Your task to perform on an android device: uninstall "DoorDash - Dasher" Image 0: 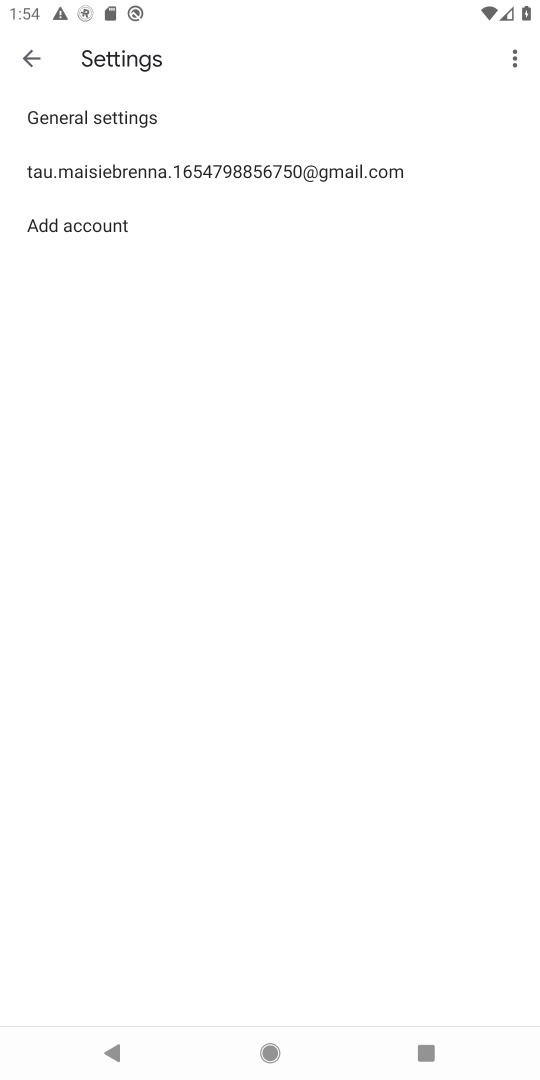
Step 0: press home button
Your task to perform on an android device: uninstall "DoorDash - Dasher" Image 1: 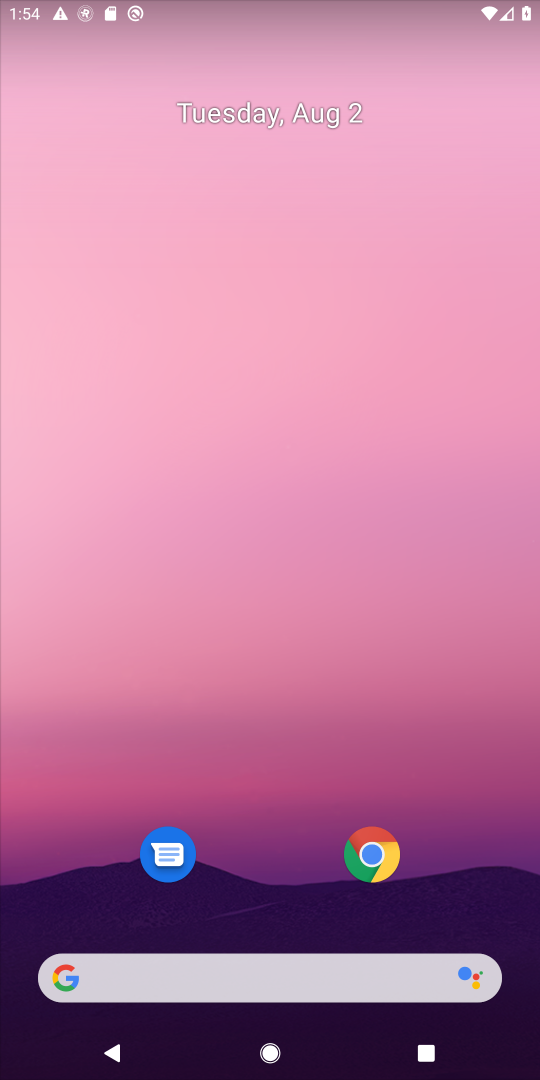
Step 1: drag from (326, 331) to (326, 88)
Your task to perform on an android device: uninstall "DoorDash - Dasher" Image 2: 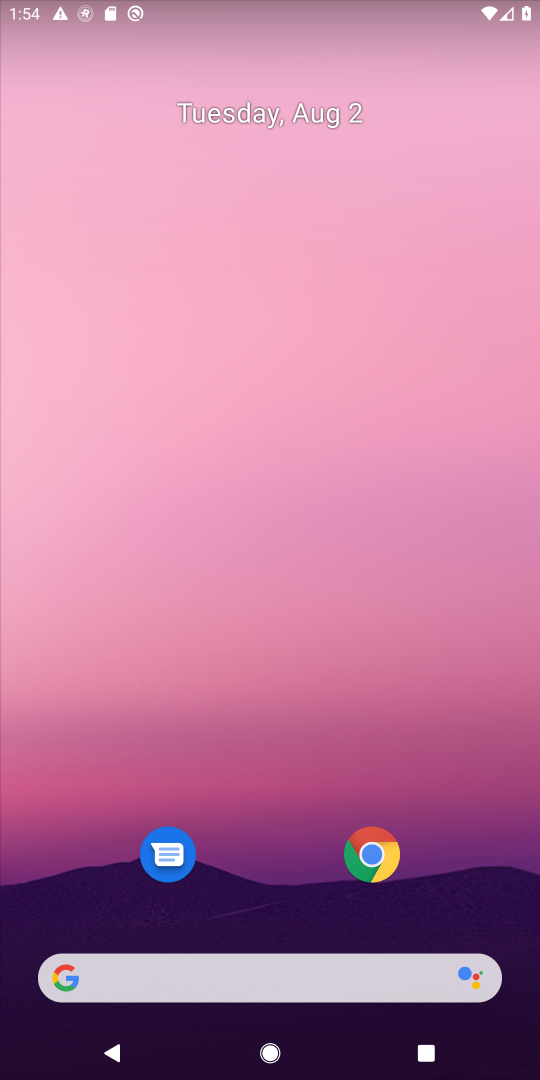
Step 2: drag from (317, 1056) to (314, 38)
Your task to perform on an android device: uninstall "DoorDash - Dasher" Image 3: 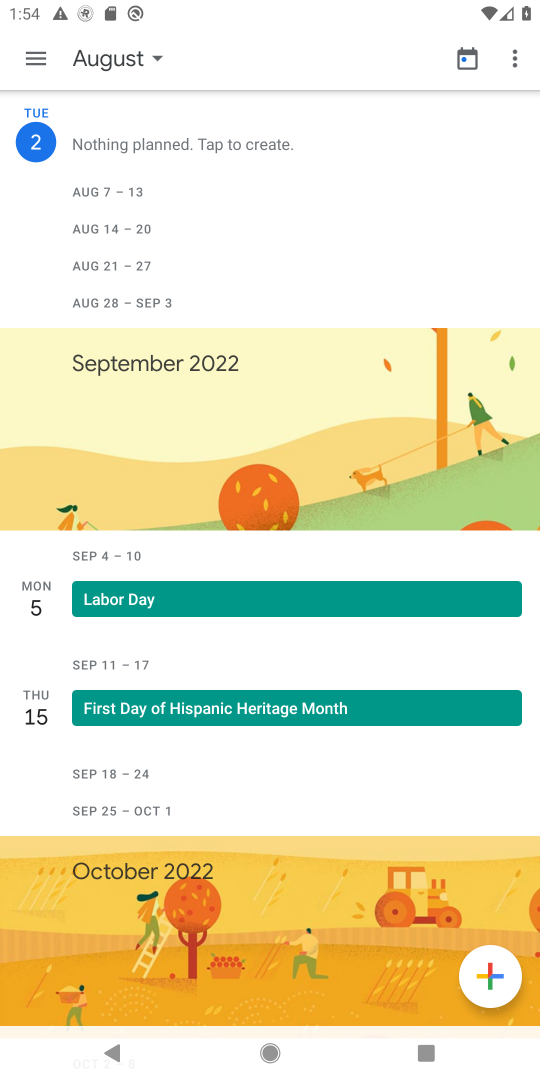
Step 3: press home button
Your task to perform on an android device: uninstall "DoorDash - Dasher" Image 4: 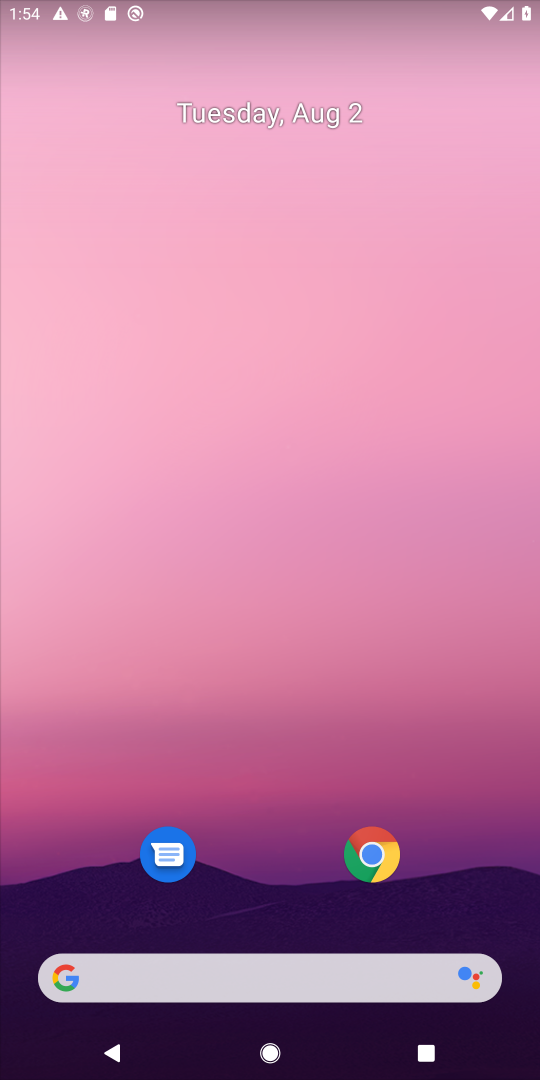
Step 4: drag from (310, 828) to (297, 136)
Your task to perform on an android device: uninstall "DoorDash - Dasher" Image 5: 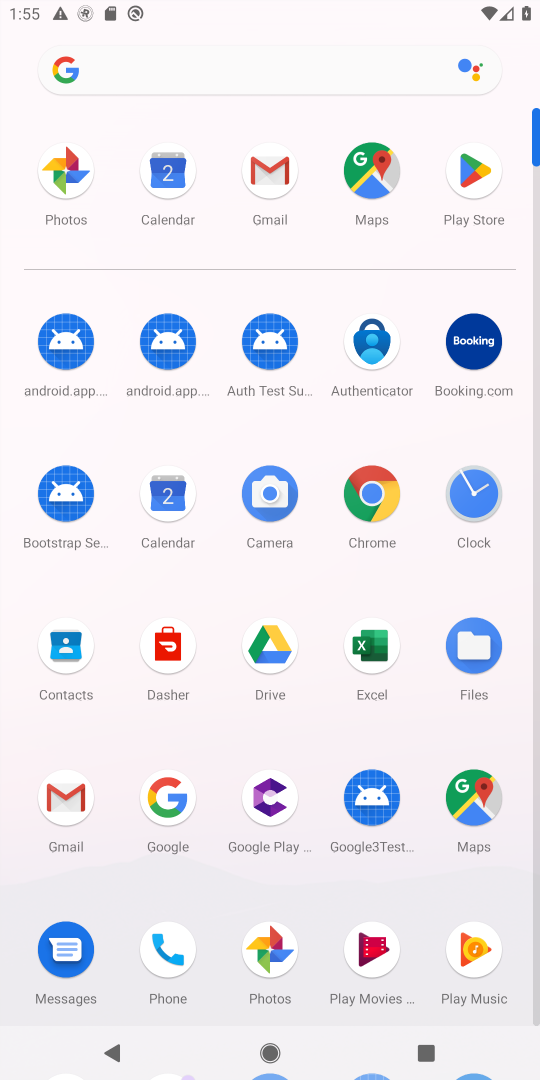
Step 5: click (471, 176)
Your task to perform on an android device: uninstall "DoorDash - Dasher" Image 6: 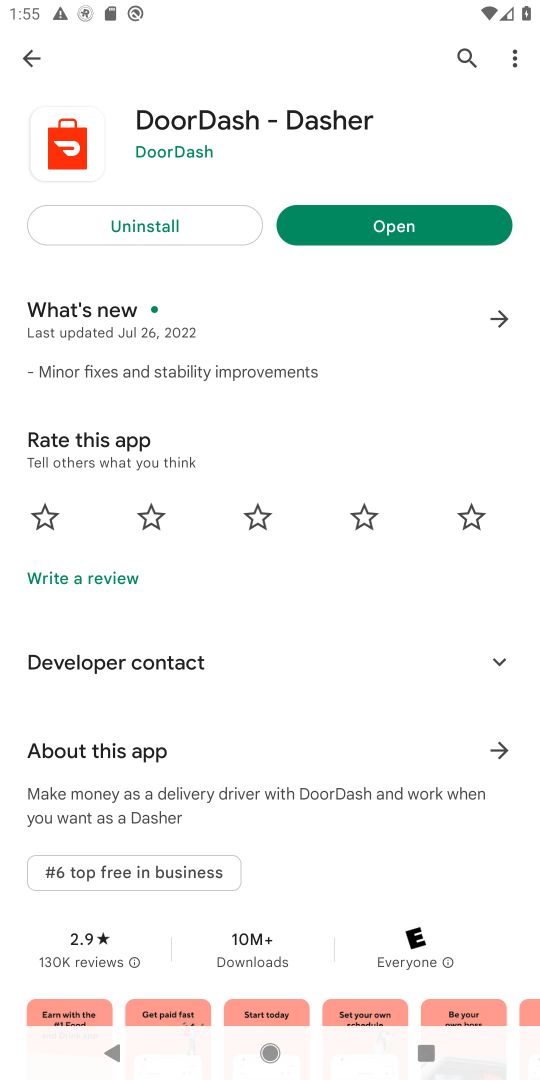
Step 6: click (462, 51)
Your task to perform on an android device: uninstall "DoorDash - Dasher" Image 7: 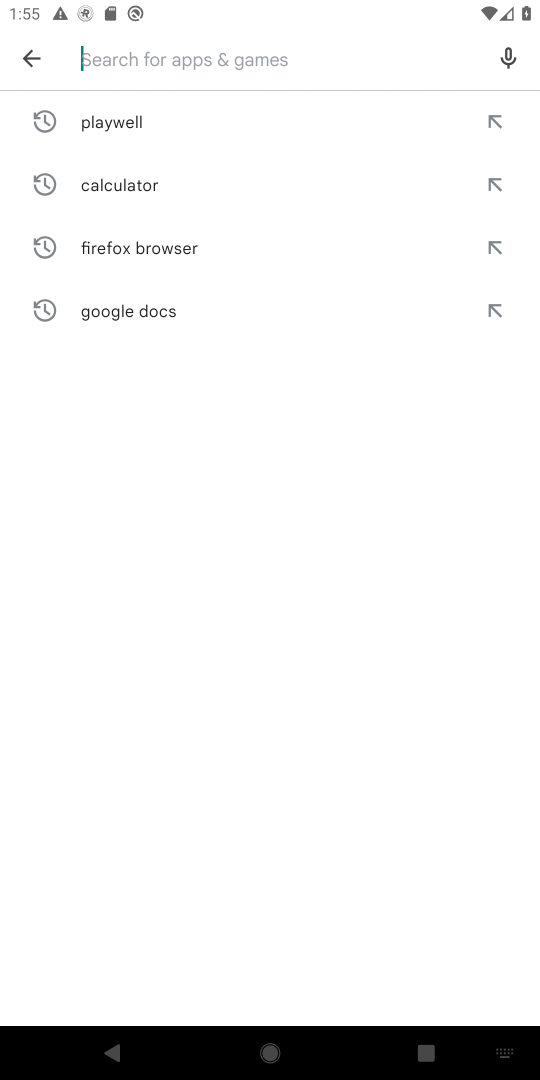
Step 7: type "DoorDash - Dashe"
Your task to perform on an android device: uninstall "DoorDash - Dasher" Image 8: 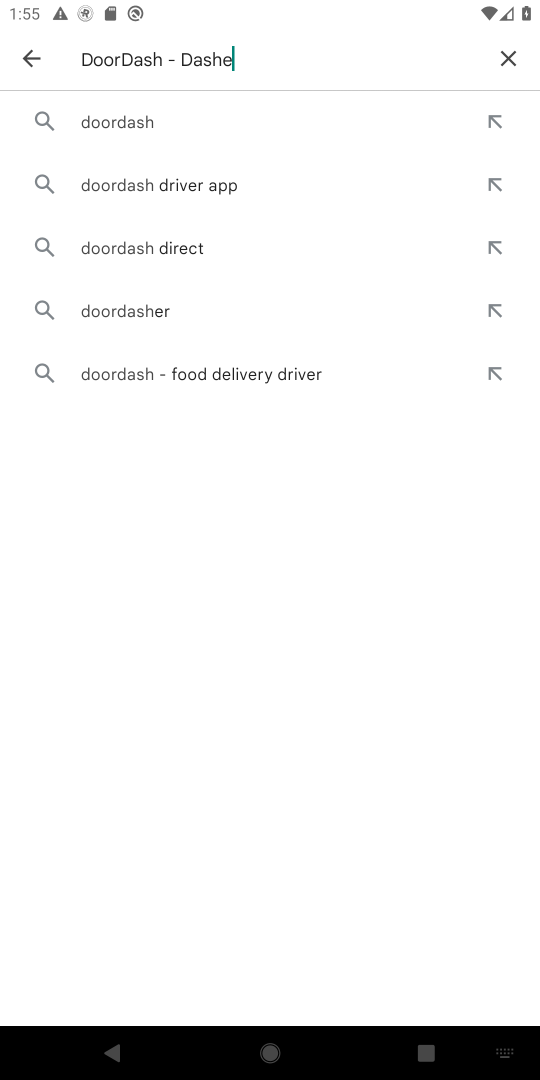
Step 8: type ""
Your task to perform on an android device: uninstall "DoorDash - Dasher" Image 9: 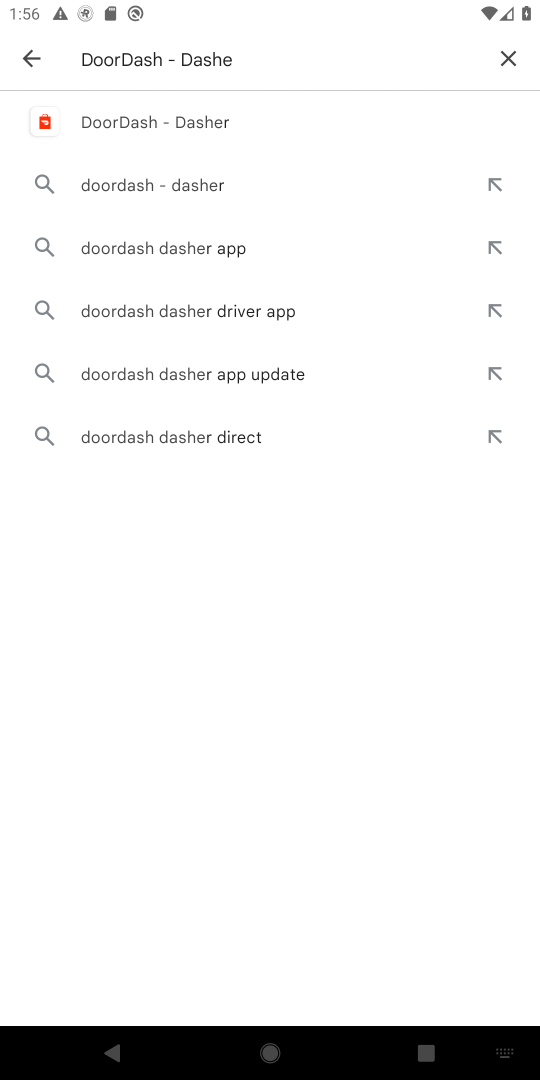
Step 9: click (213, 121)
Your task to perform on an android device: uninstall "DoorDash - Dasher" Image 10: 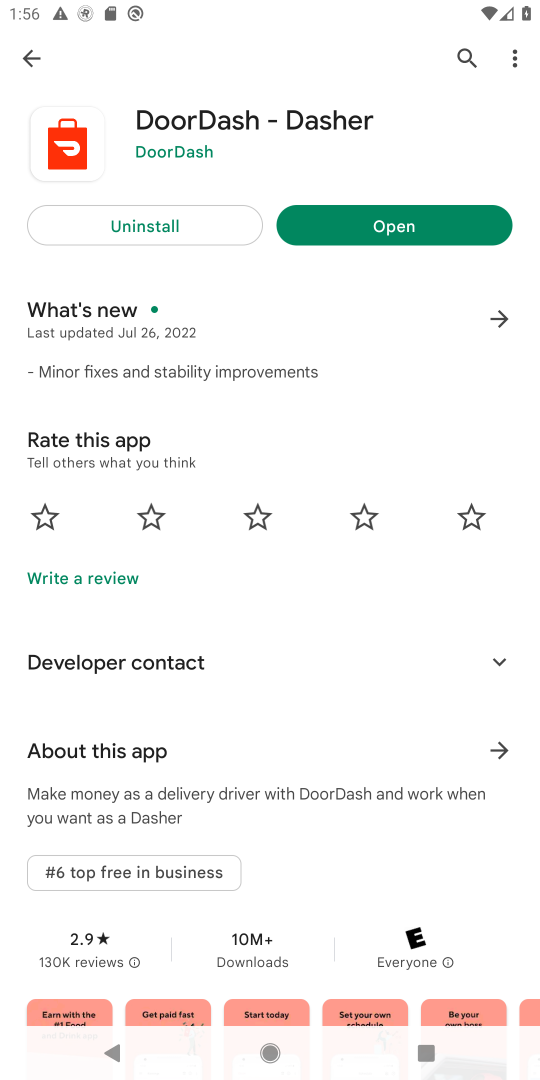
Step 10: click (145, 220)
Your task to perform on an android device: uninstall "DoorDash - Dasher" Image 11: 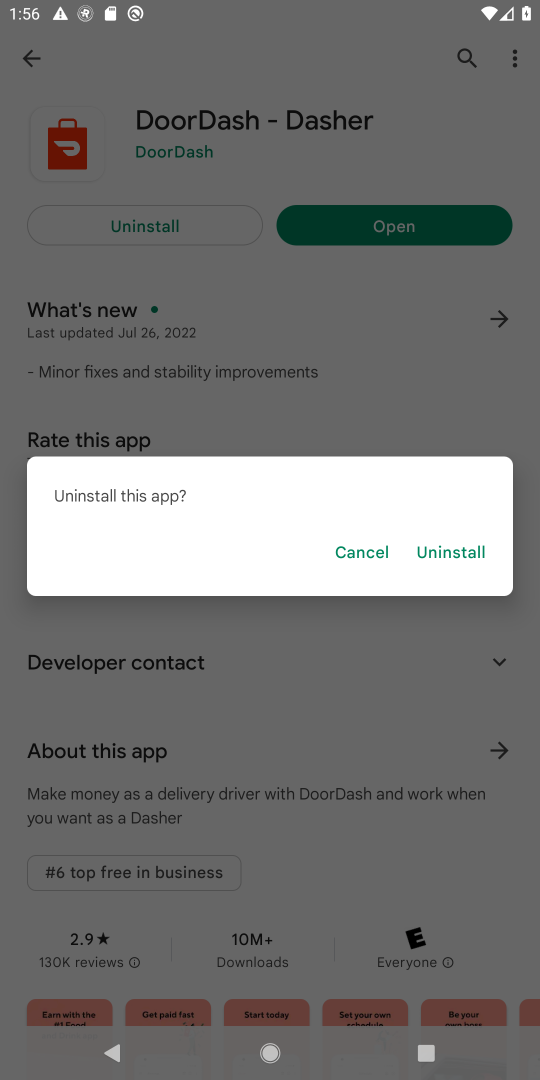
Step 11: click (451, 548)
Your task to perform on an android device: uninstall "DoorDash - Dasher" Image 12: 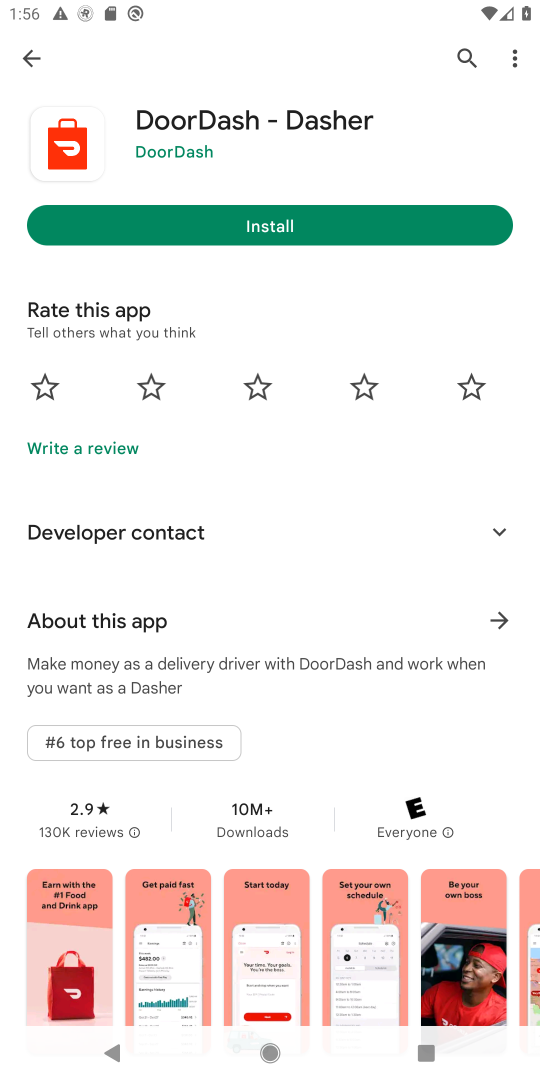
Step 12: task complete